Your task to perform on an android device: Open ESPN.com Image 0: 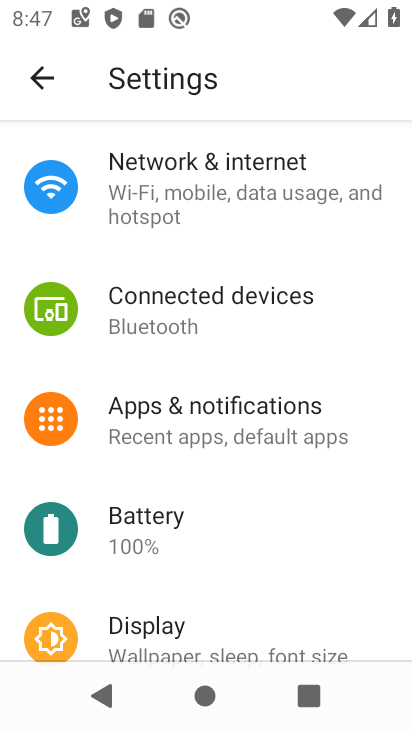
Step 0: press home button
Your task to perform on an android device: Open ESPN.com Image 1: 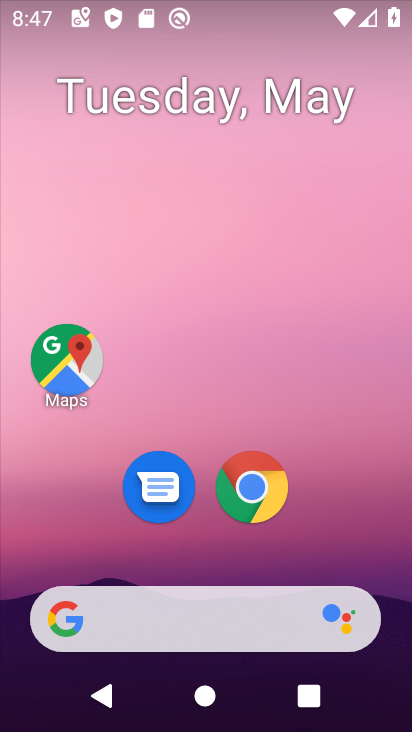
Step 1: drag from (367, 548) to (359, 243)
Your task to perform on an android device: Open ESPN.com Image 2: 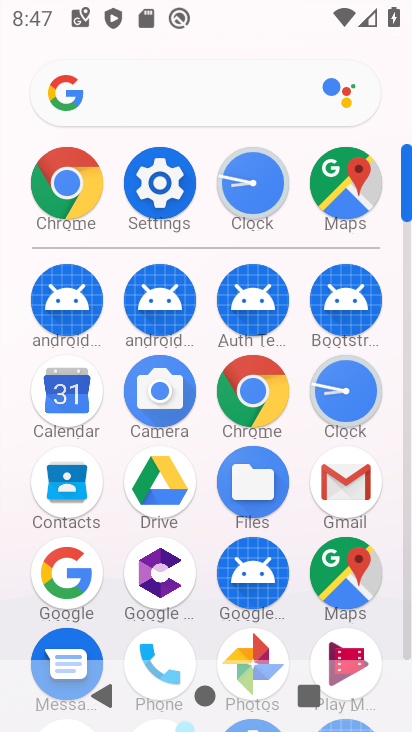
Step 2: click (263, 404)
Your task to perform on an android device: Open ESPN.com Image 3: 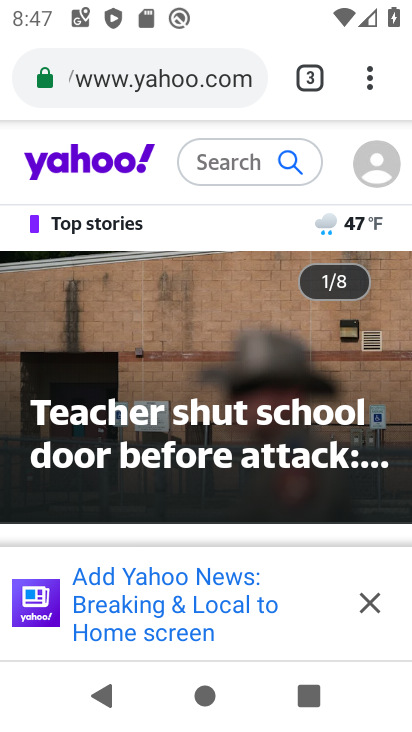
Step 3: click (186, 82)
Your task to perform on an android device: Open ESPN.com Image 4: 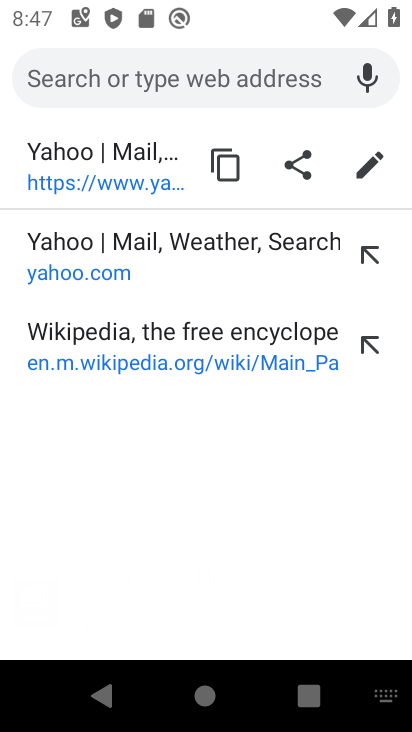
Step 4: type "espn.com"
Your task to perform on an android device: Open ESPN.com Image 5: 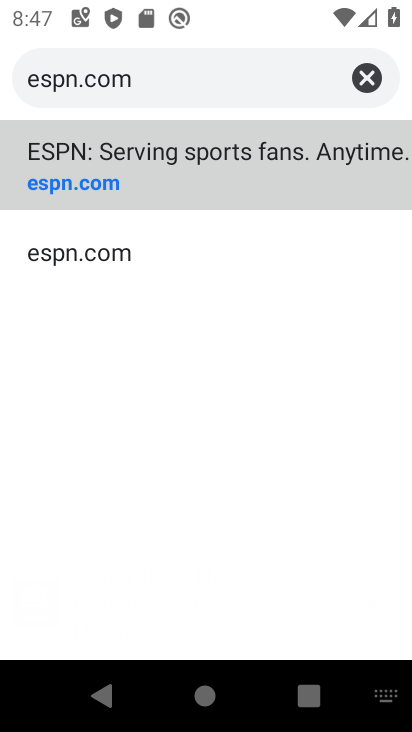
Step 5: click (190, 172)
Your task to perform on an android device: Open ESPN.com Image 6: 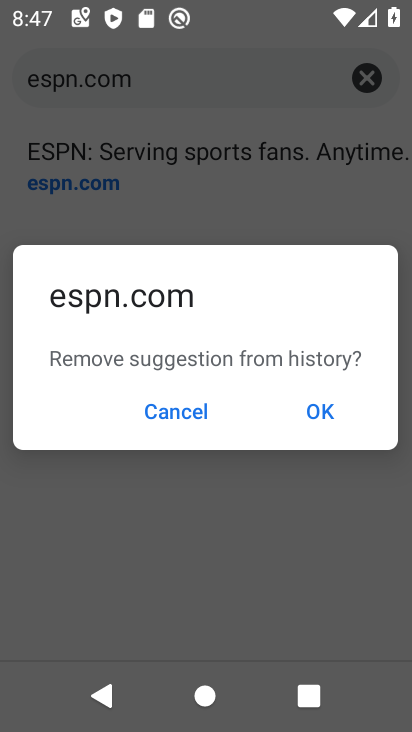
Step 6: click (197, 416)
Your task to perform on an android device: Open ESPN.com Image 7: 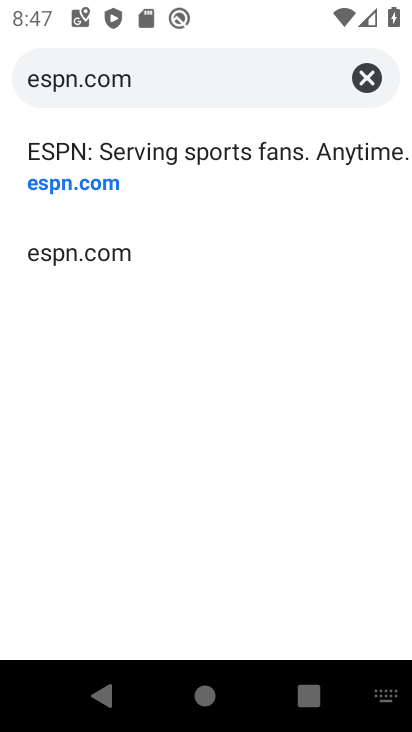
Step 7: click (254, 147)
Your task to perform on an android device: Open ESPN.com Image 8: 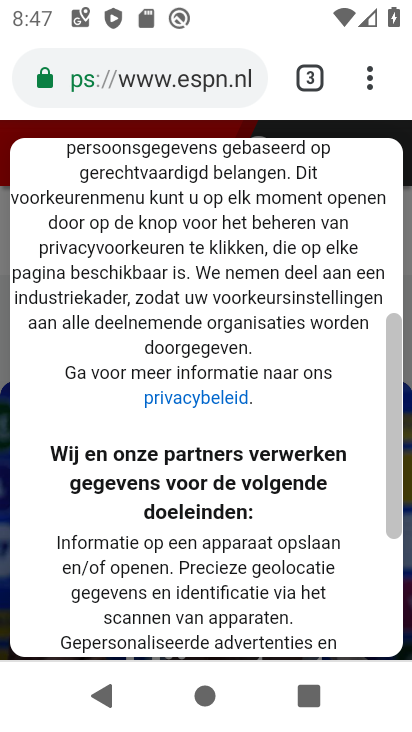
Step 8: task complete